Your task to perform on an android device: Go to eBay Image 0: 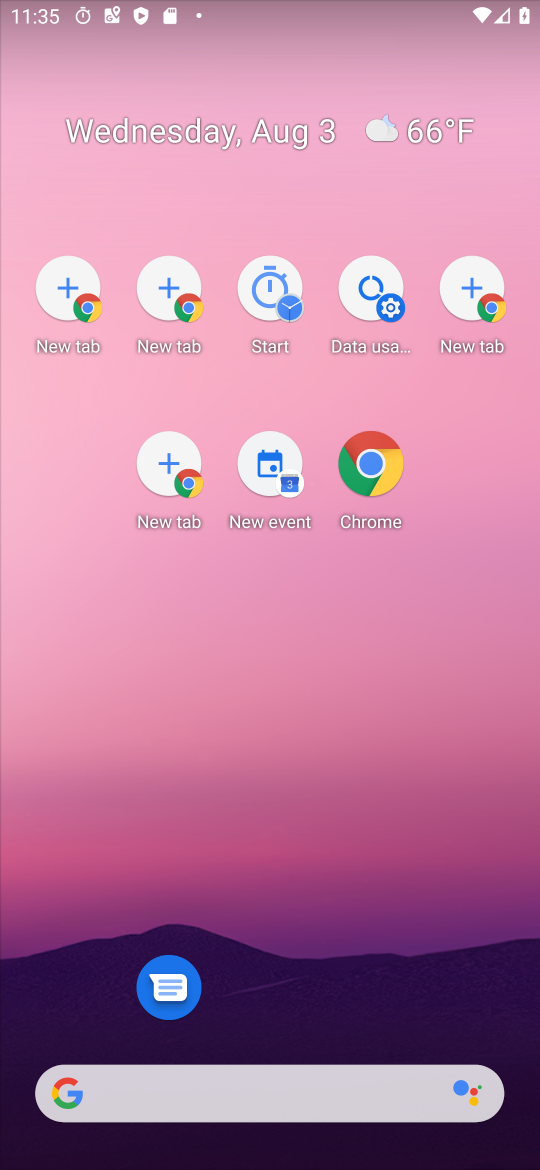
Step 0: drag from (371, 1096) to (247, 335)
Your task to perform on an android device: Go to eBay Image 1: 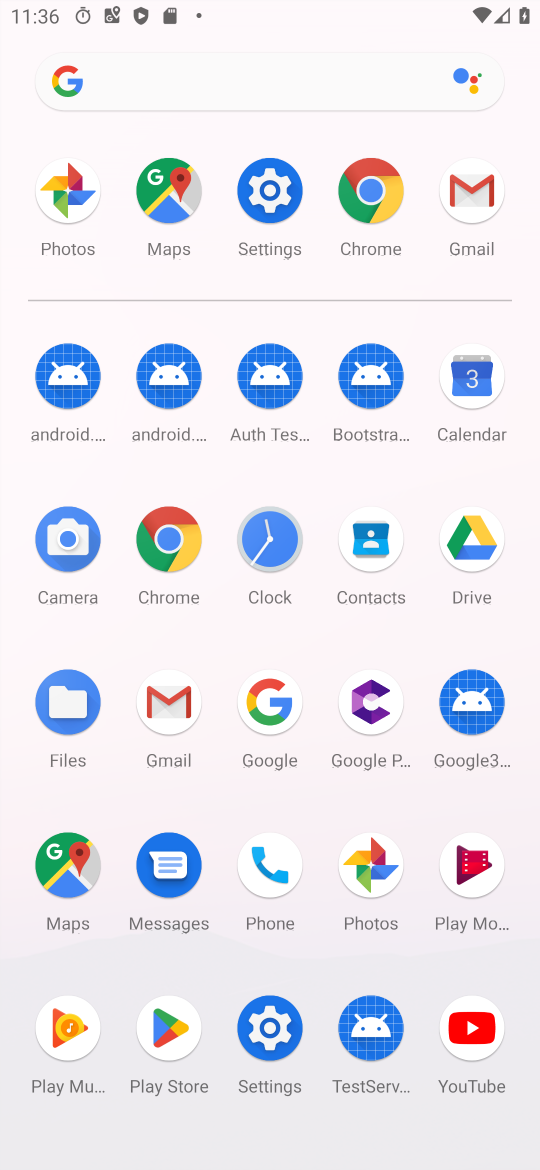
Step 1: click (365, 189)
Your task to perform on an android device: Go to eBay Image 2: 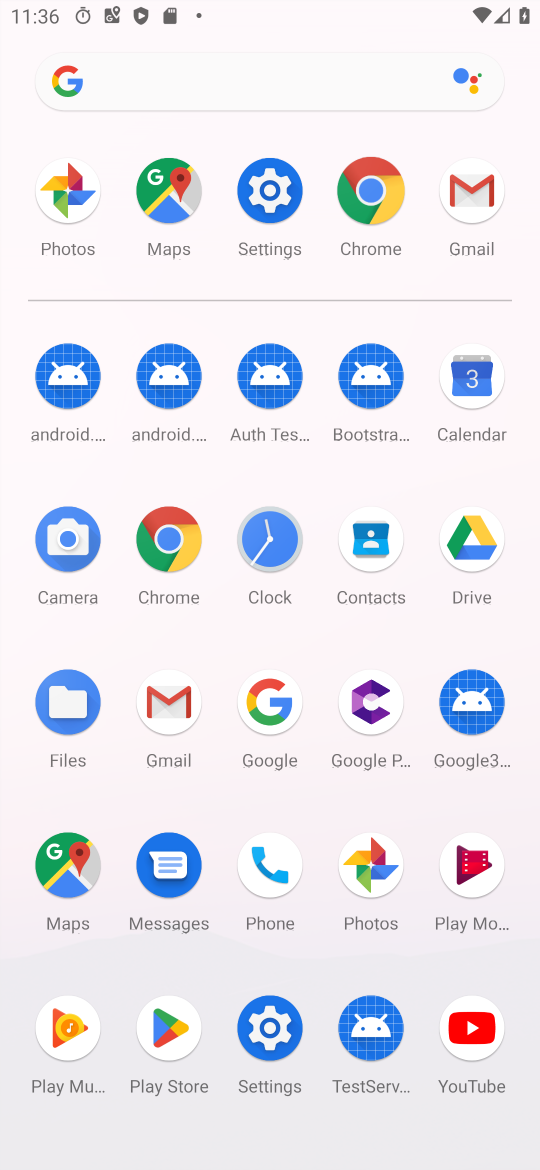
Step 2: click (365, 189)
Your task to perform on an android device: Go to eBay Image 3: 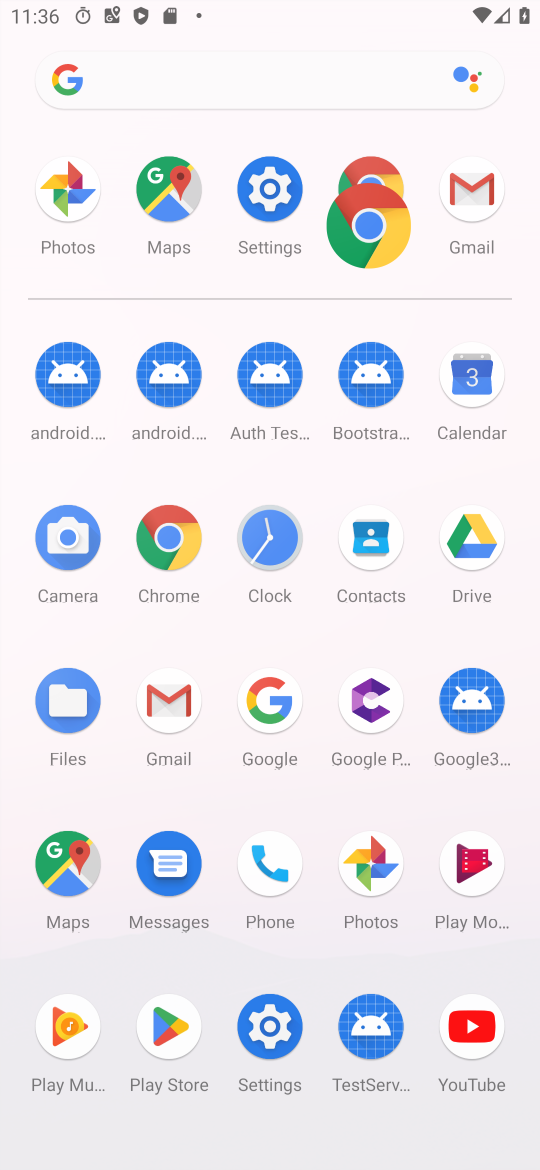
Step 3: click (365, 189)
Your task to perform on an android device: Go to eBay Image 4: 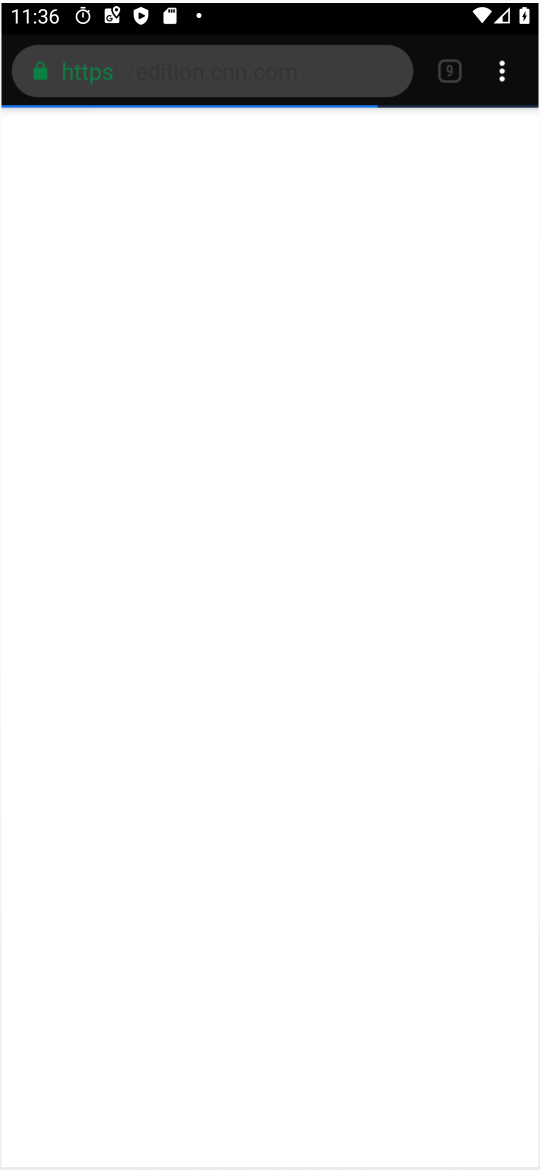
Step 4: click (367, 190)
Your task to perform on an android device: Go to eBay Image 5: 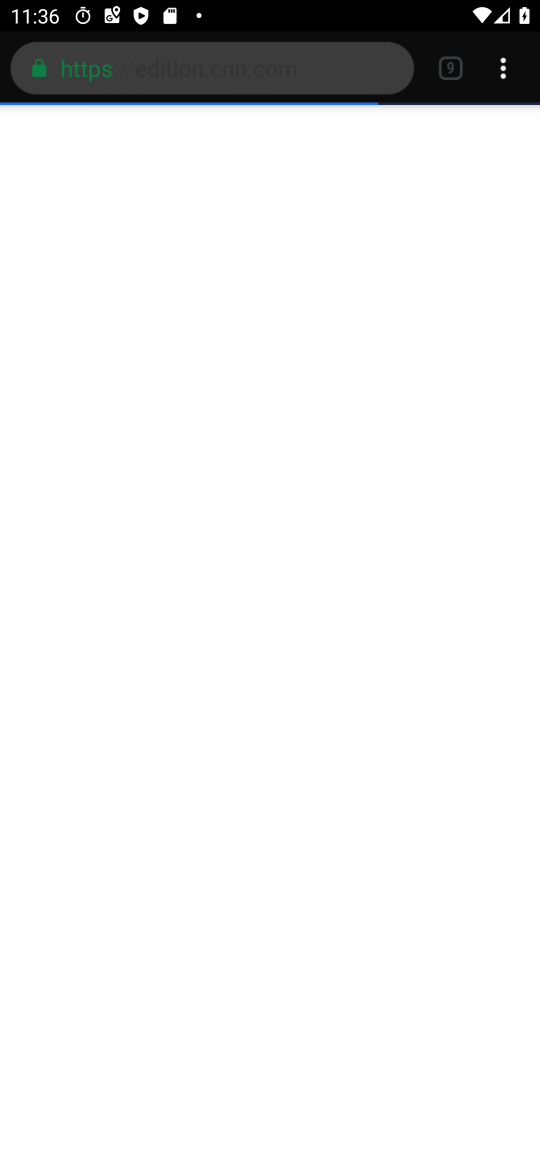
Step 5: click (367, 190)
Your task to perform on an android device: Go to eBay Image 6: 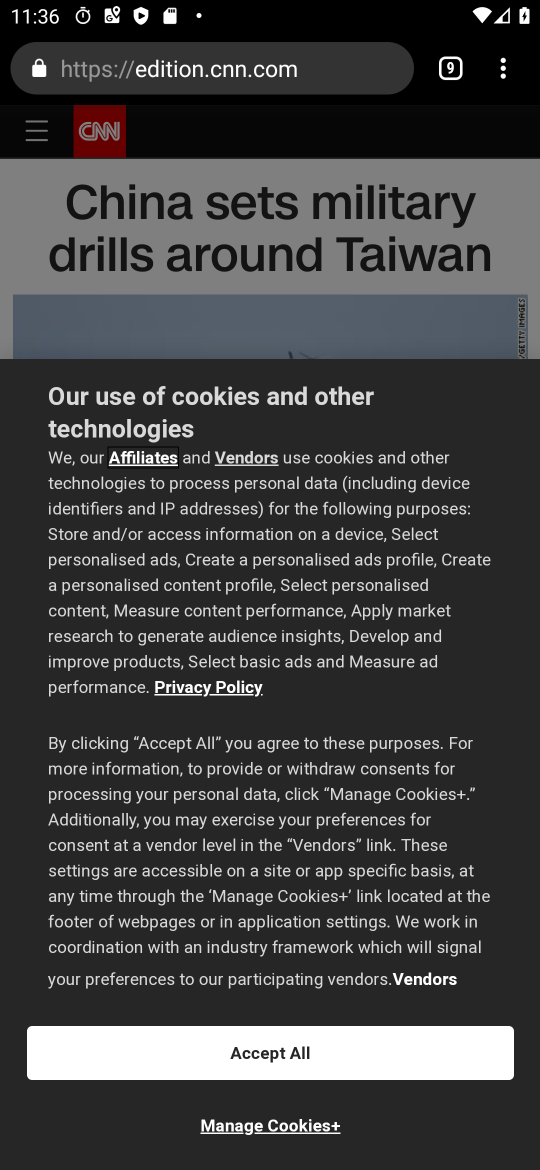
Step 6: drag from (506, 63) to (244, 150)
Your task to perform on an android device: Go to eBay Image 7: 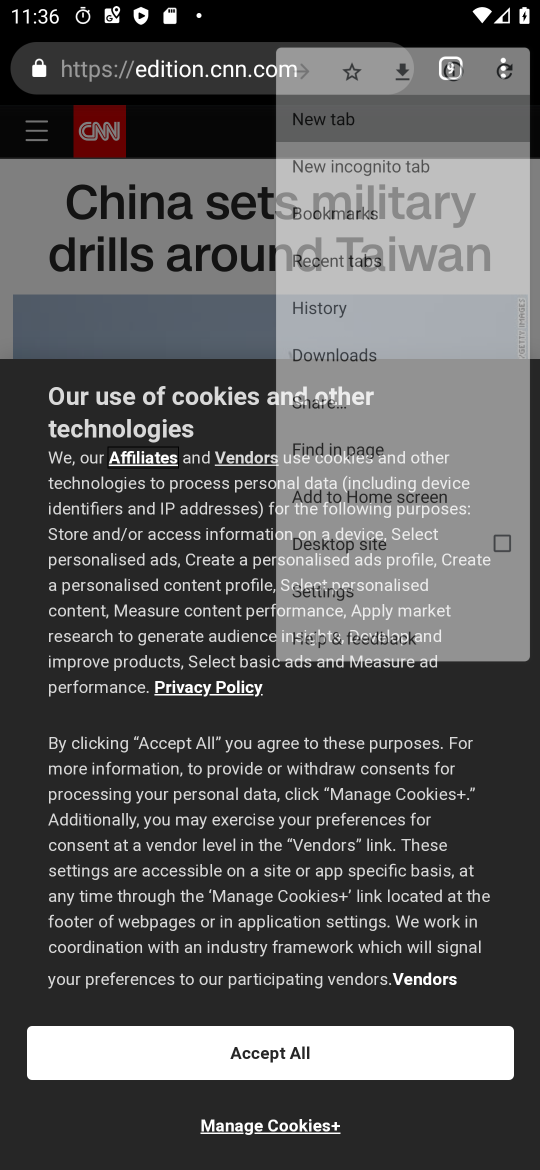
Step 7: click (245, 151)
Your task to perform on an android device: Go to eBay Image 8: 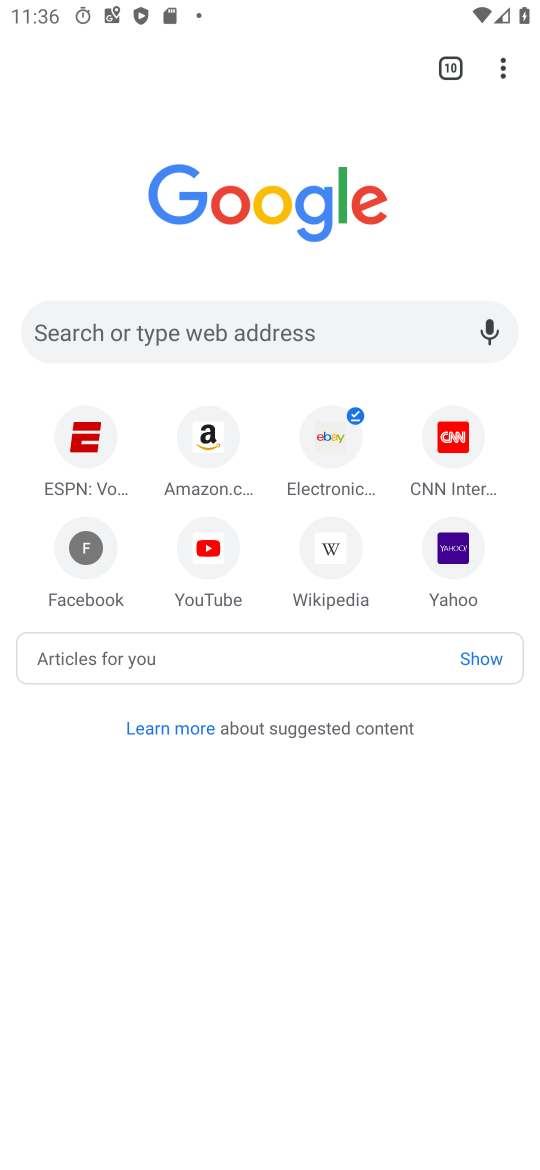
Step 8: click (339, 444)
Your task to perform on an android device: Go to eBay Image 9: 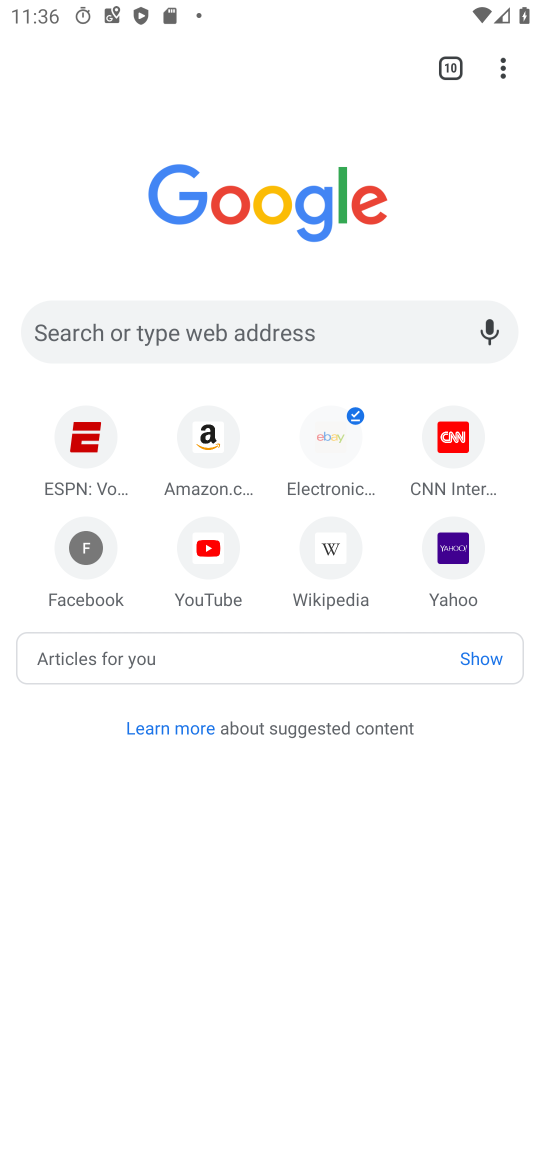
Step 9: drag from (341, 445) to (336, 389)
Your task to perform on an android device: Go to eBay Image 10: 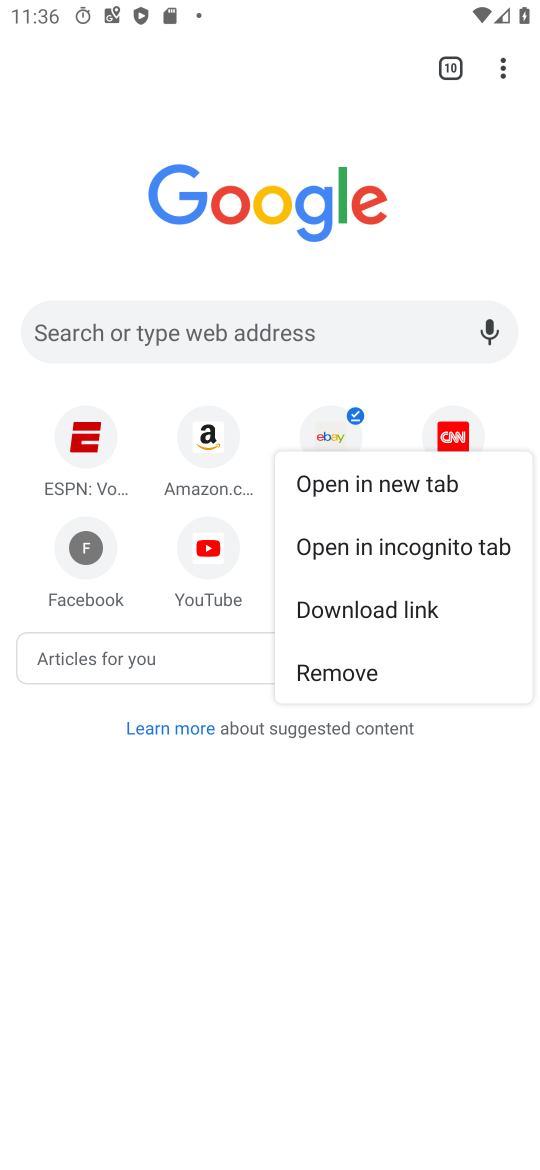
Step 10: click (354, 497)
Your task to perform on an android device: Go to eBay Image 11: 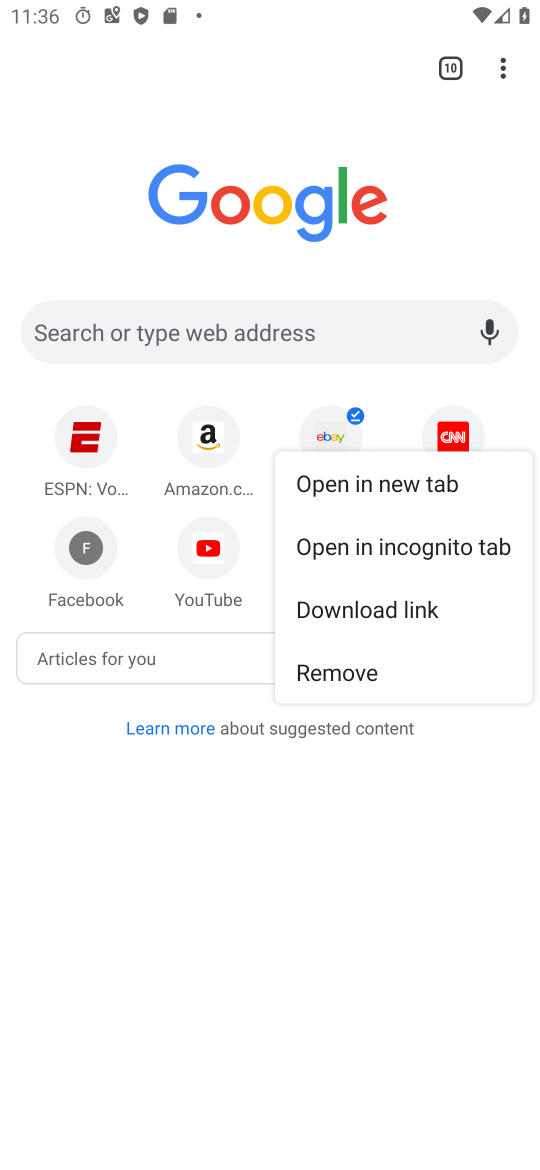
Step 11: click (364, 489)
Your task to perform on an android device: Go to eBay Image 12: 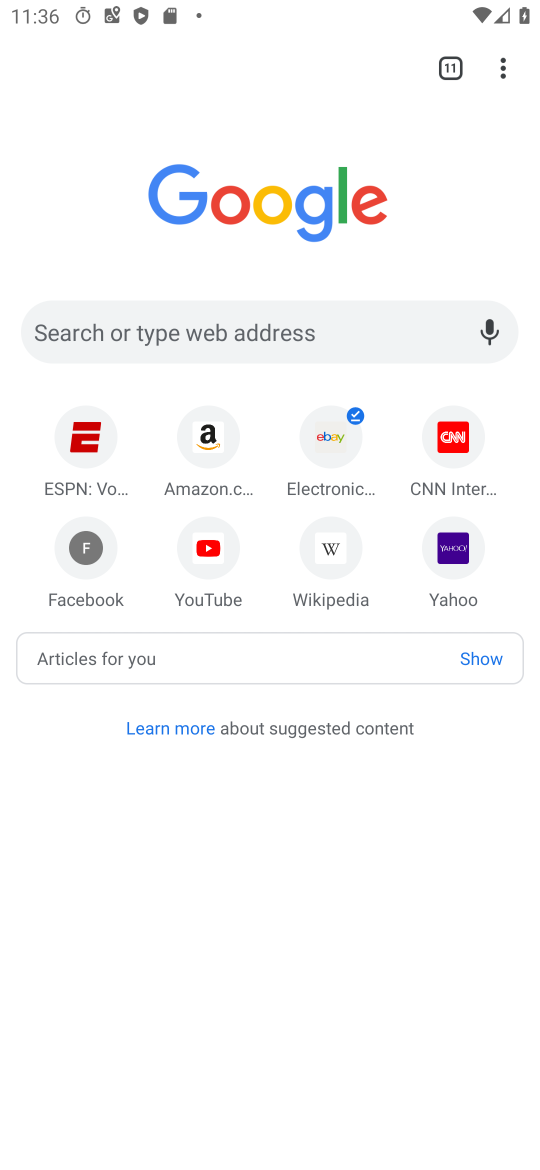
Step 12: click (338, 432)
Your task to perform on an android device: Go to eBay Image 13: 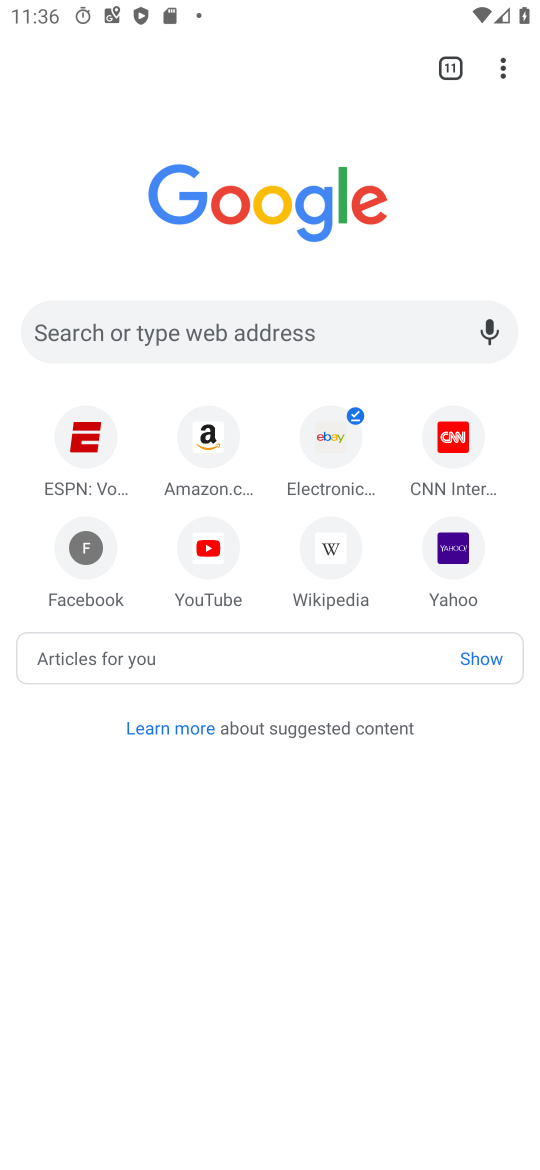
Step 13: click (338, 432)
Your task to perform on an android device: Go to eBay Image 14: 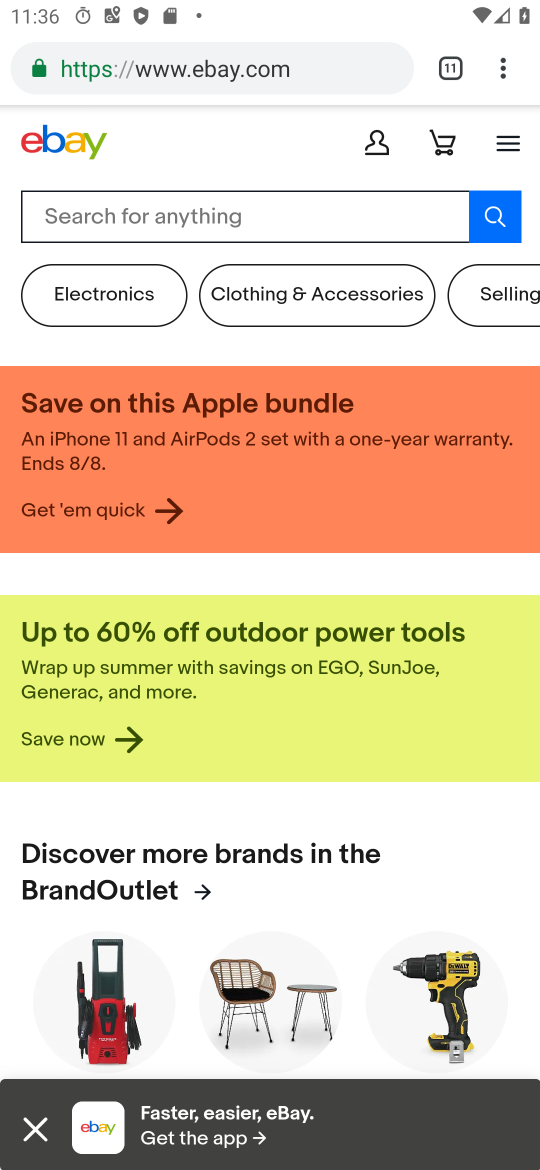
Step 14: task complete